Your task to perform on an android device: Open the stopwatch Image 0: 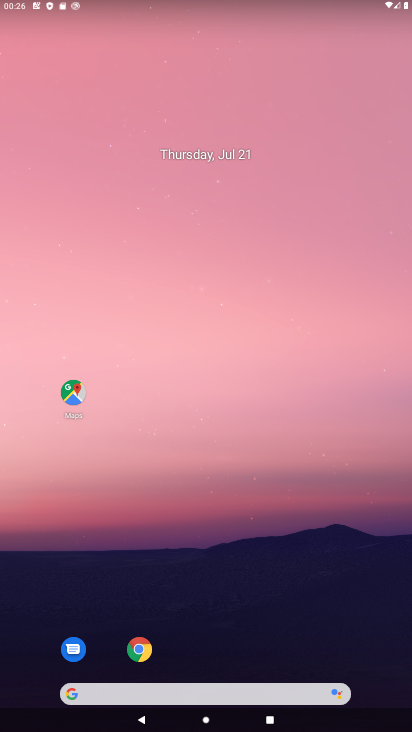
Step 0: drag from (228, 725) to (228, 177)
Your task to perform on an android device: Open the stopwatch Image 1: 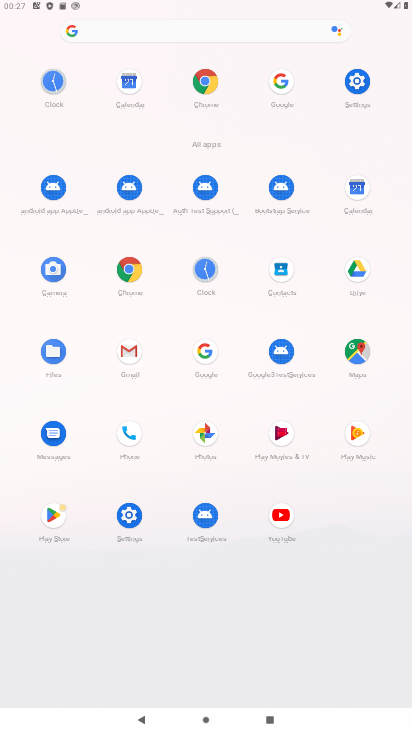
Step 1: click (203, 272)
Your task to perform on an android device: Open the stopwatch Image 2: 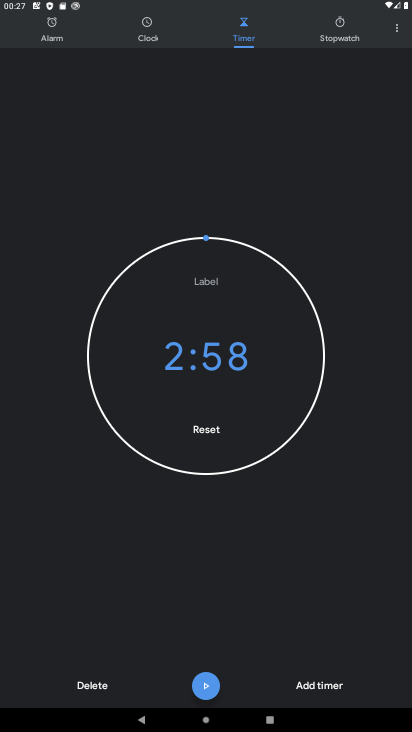
Step 2: click (341, 33)
Your task to perform on an android device: Open the stopwatch Image 3: 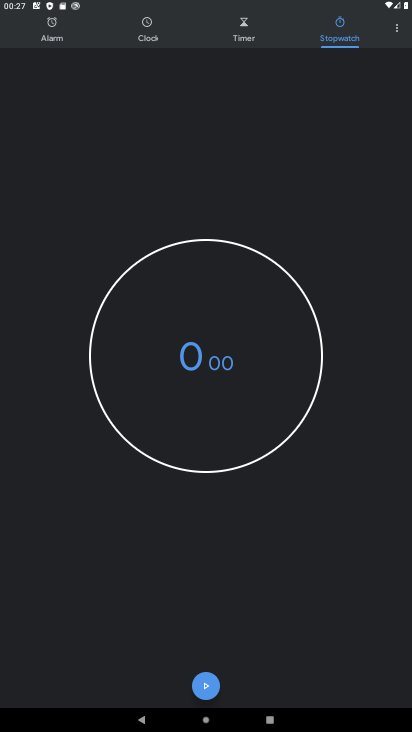
Step 3: task complete